Your task to perform on an android device: Go to CNN.com Image 0: 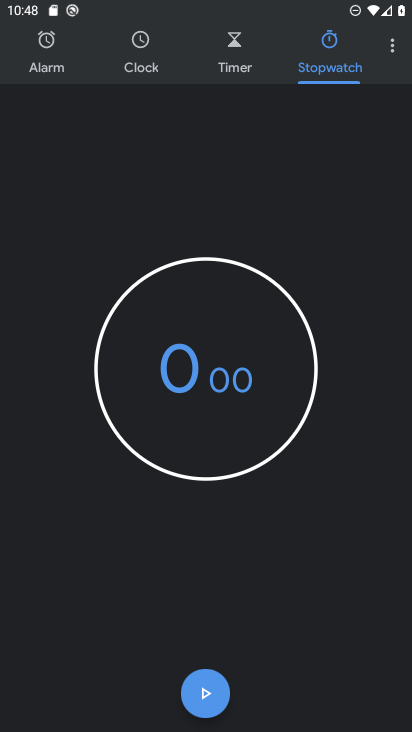
Step 0: press home button
Your task to perform on an android device: Go to CNN.com Image 1: 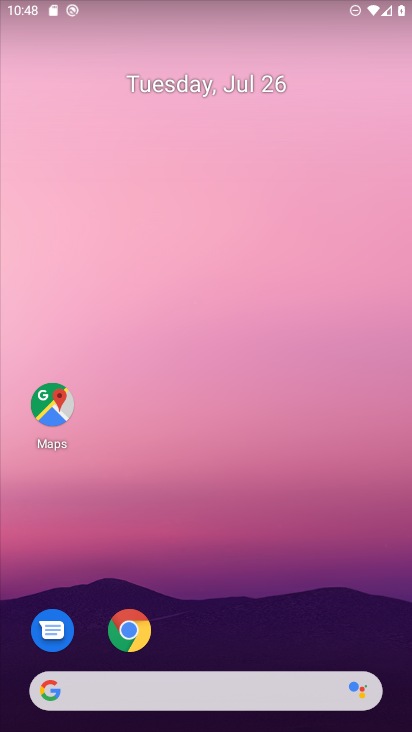
Step 1: click (127, 629)
Your task to perform on an android device: Go to CNN.com Image 2: 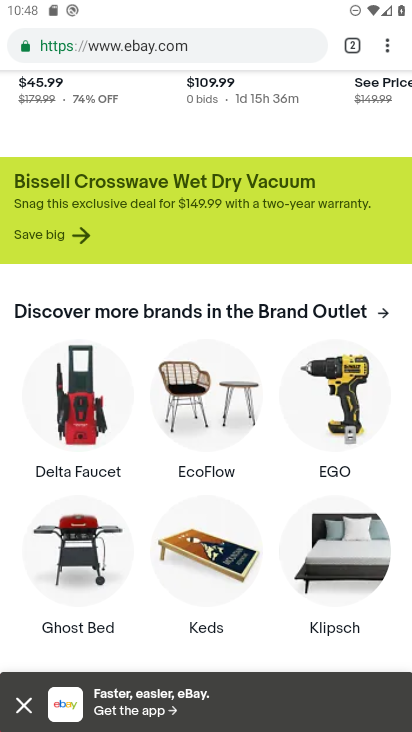
Step 2: click (247, 44)
Your task to perform on an android device: Go to CNN.com Image 3: 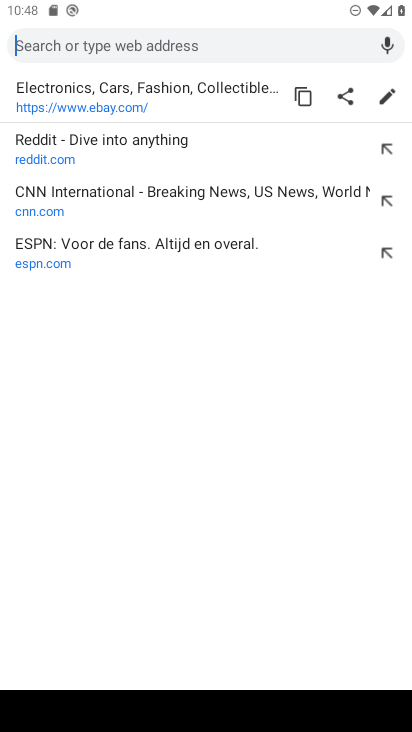
Step 3: type "cnn.com"
Your task to perform on an android device: Go to CNN.com Image 4: 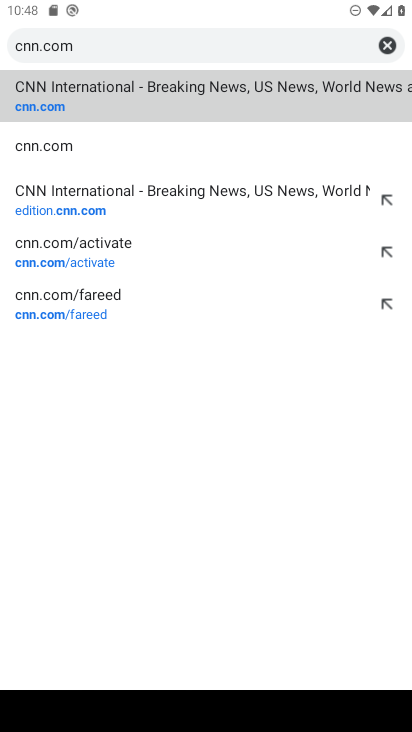
Step 4: click (68, 95)
Your task to perform on an android device: Go to CNN.com Image 5: 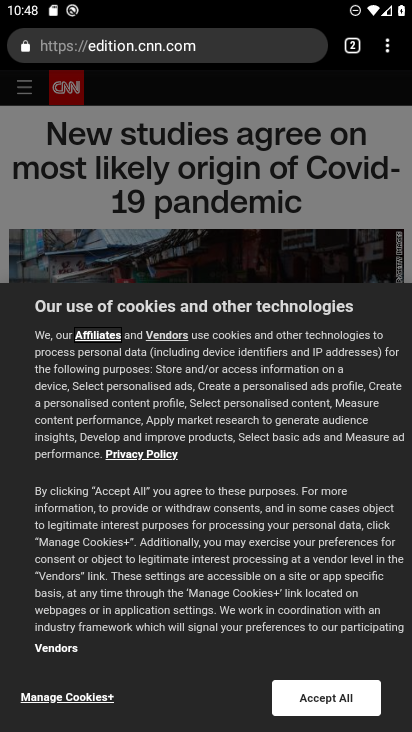
Step 5: click (327, 699)
Your task to perform on an android device: Go to CNN.com Image 6: 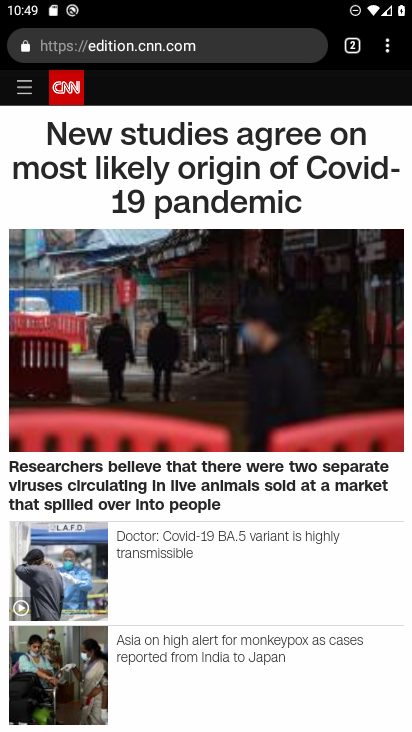
Step 6: task complete